Your task to perform on an android device: Open wifi settings Image 0: 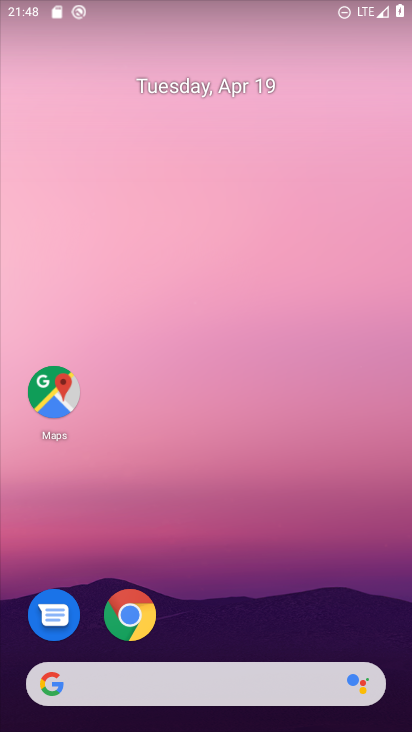
Step 0: drag from (148, 11) to (244, 583)
Your task to perform on an android device: Open wifi settings Image 1: 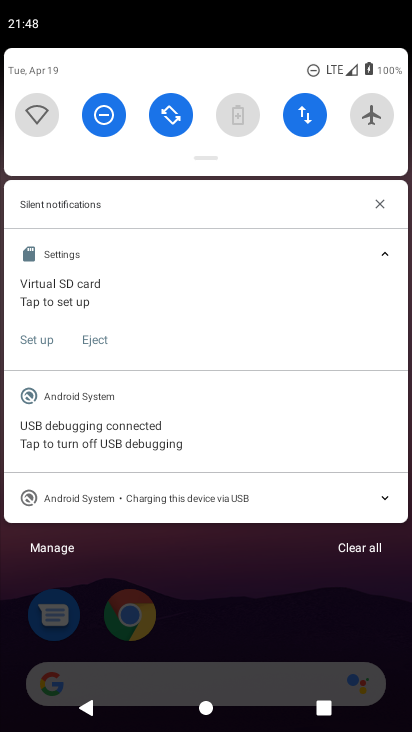
Step 1: click (36, 129)
Your task to perform on an android device: Open wifi settings Image 2: 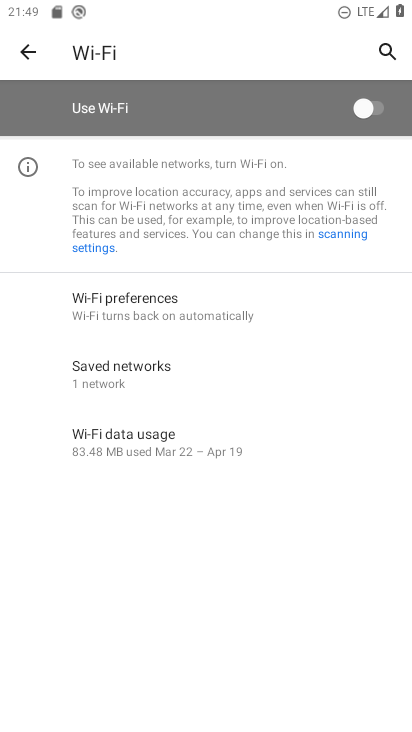
Step 2: task complete